Your task to perform on an android device: When is my next meeting? Image 0: 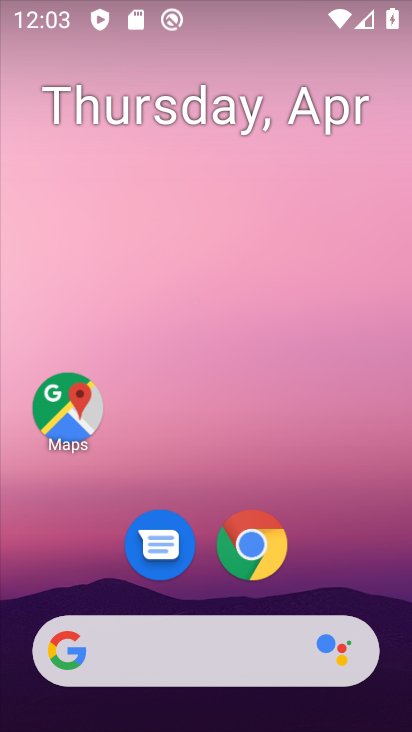
Step 0: drag from (390, 529) to (336, 145)
Your task to perform on an android device: When is my next meeting? Image 1: 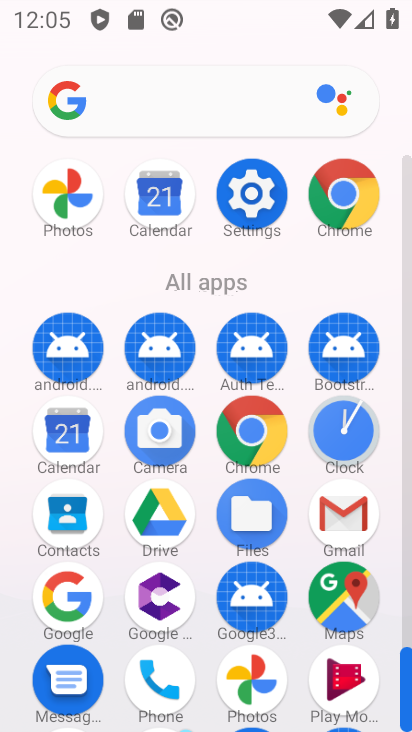
Step 1: drag from (199, 602) to (205, 157)
Your task to perform on an android device: When is my next meeting? Image 2: 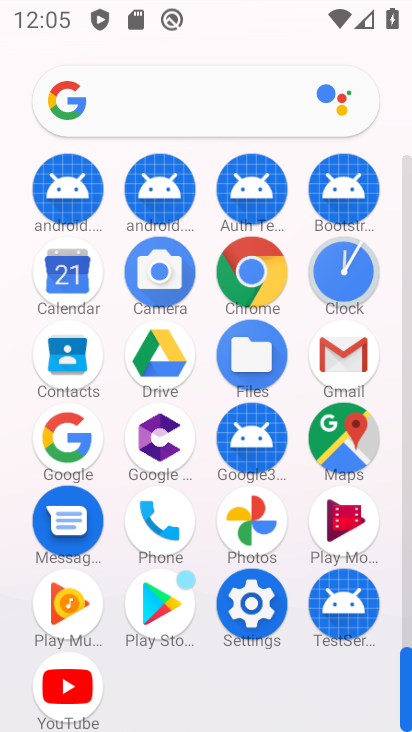
Step 2: click (80, 250)
Your task to perform on an android device: When is my next meeting? Image 3: 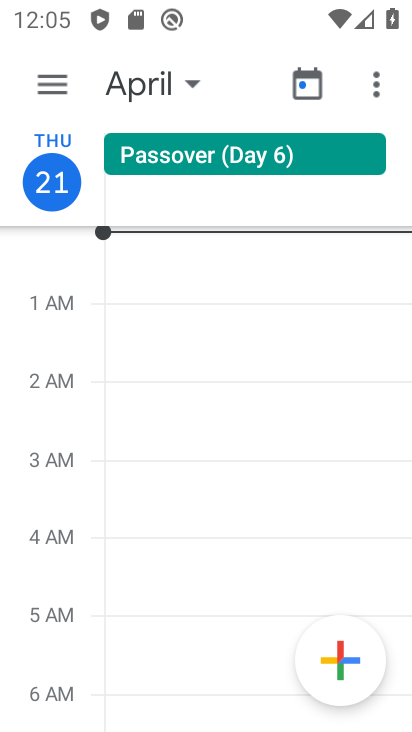
Step 3: click (150, 89)
Your task to perform on an android device: When is my next meeting? Image 4: 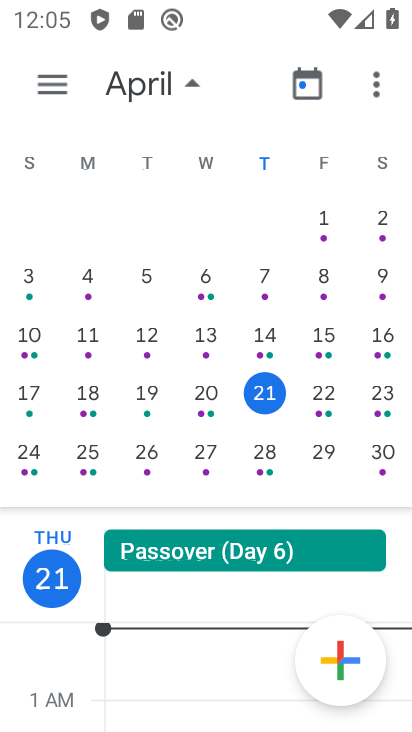
Step 4: click (328, 400)
Your task to perform on an android device: When is my next meeting? Image 5: 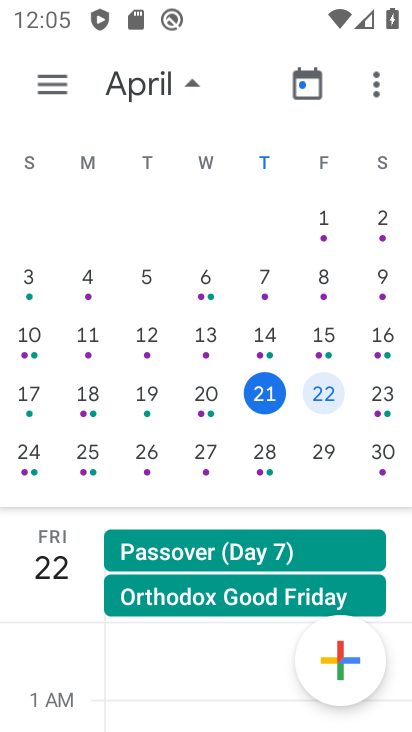
Step 5: task complete